Your task to perform on an android device: Go to Google Image 0: 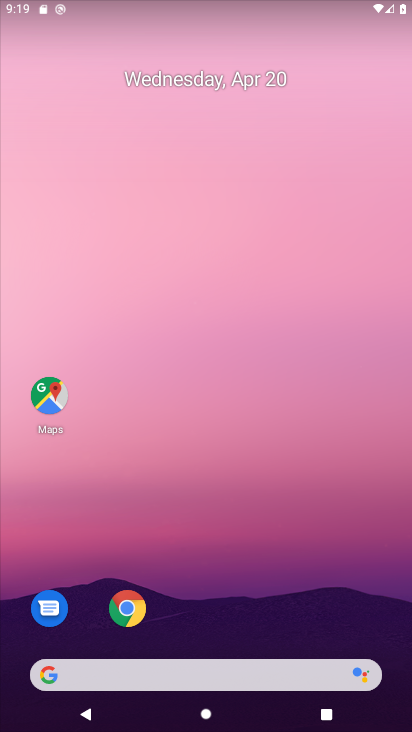
Step 0: click (139, 665)
Your task to perform on an android device: Go to Google Image 1: 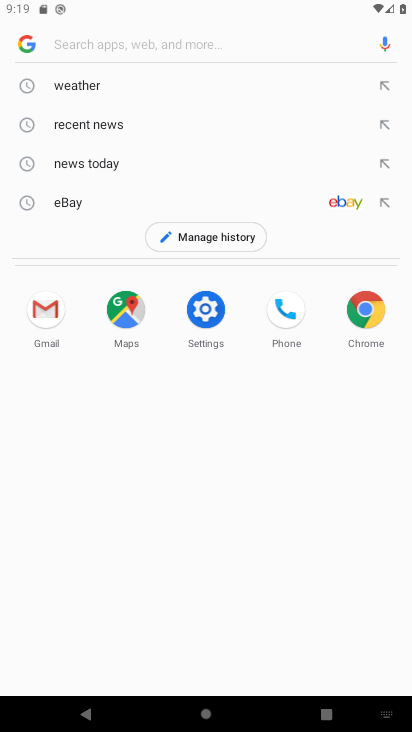
Step 1: click (228, 47)
Your task to perform on an android device: Go to Google Image 2: 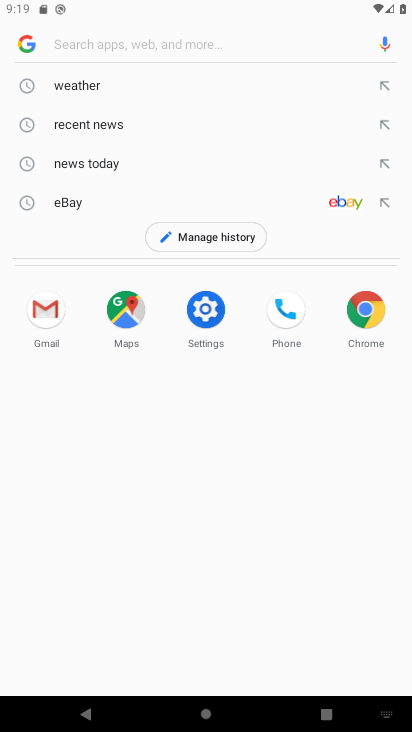
Step 2: click (30, 43)
Your task to perform on an android device: Go to Google Image 3: 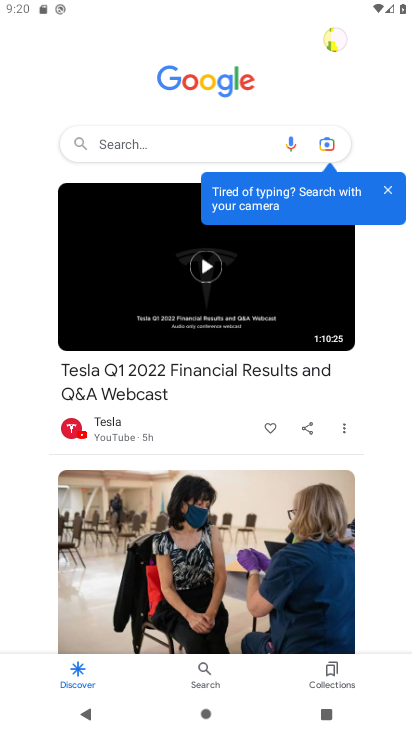
Step 3: task complete